Your task to perform on an android device: Go to Google Image 0: 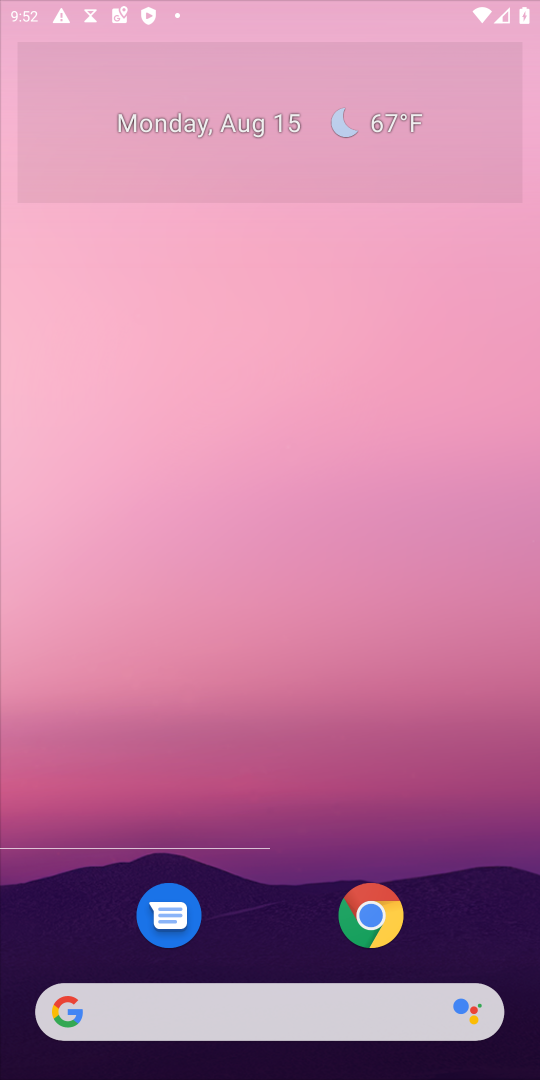
Step 0: press home button
Your task to perform on an android device: Go to Google Image 1: 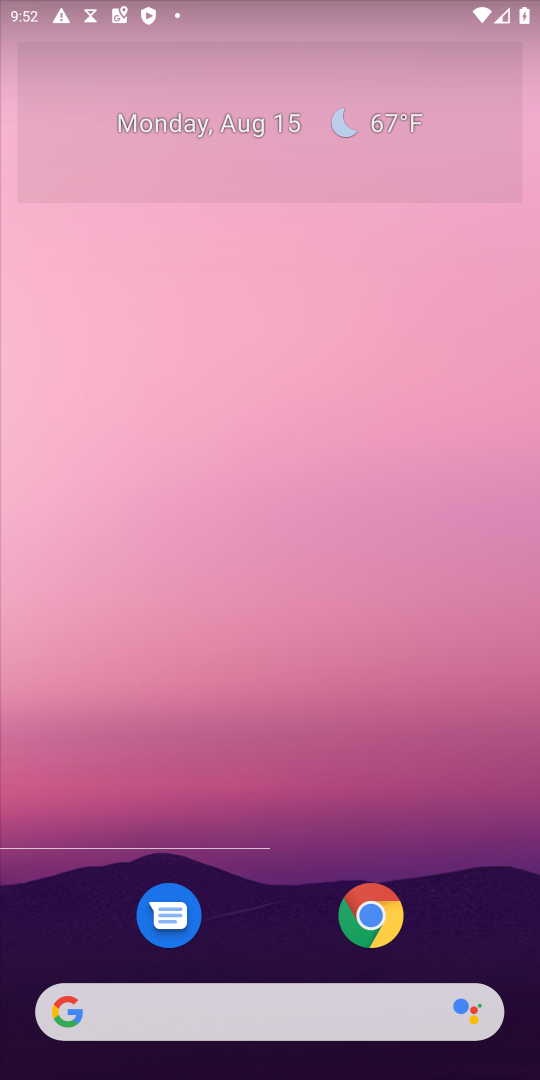
Step 1: drag from (271, 859) to (412, 47)
Your task to perform on an android device: Go to Google Image 2: 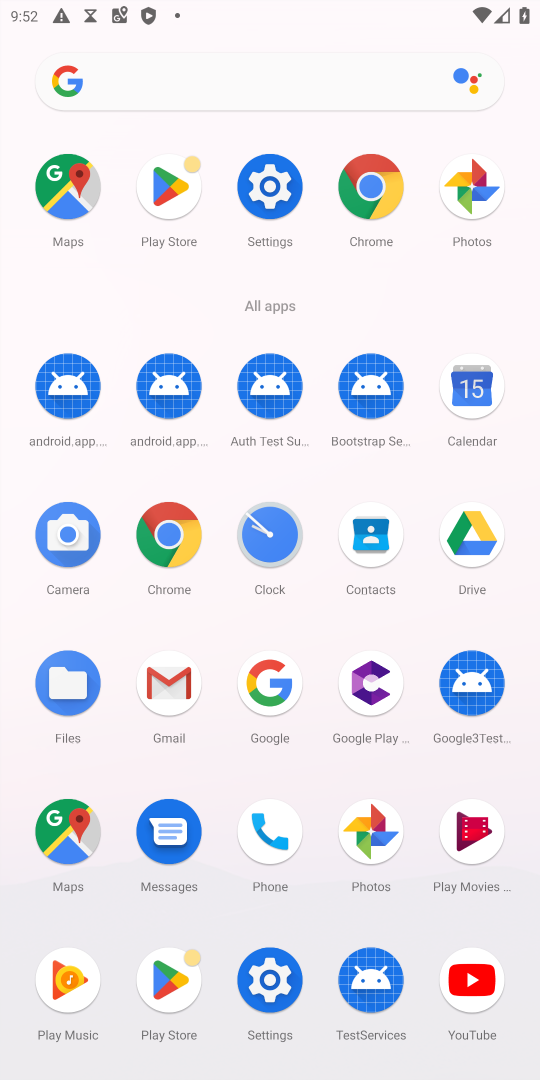
Step 2: click (264, 695)
Your task to perform on an android device: Go to Google Image 3: 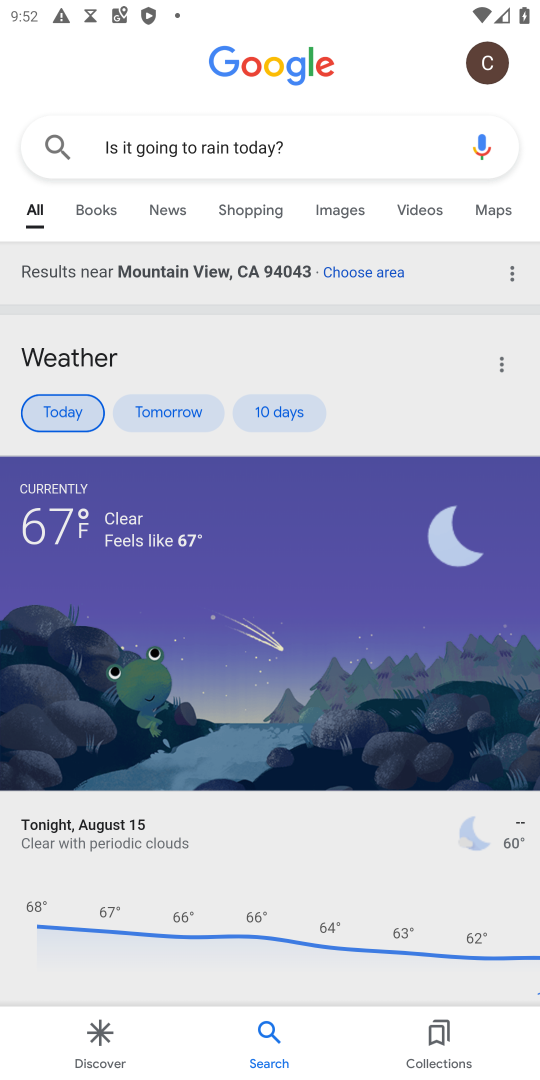
Step 3: click (259, 68)
Your task to perform on an android device: Go to Google Image 4: 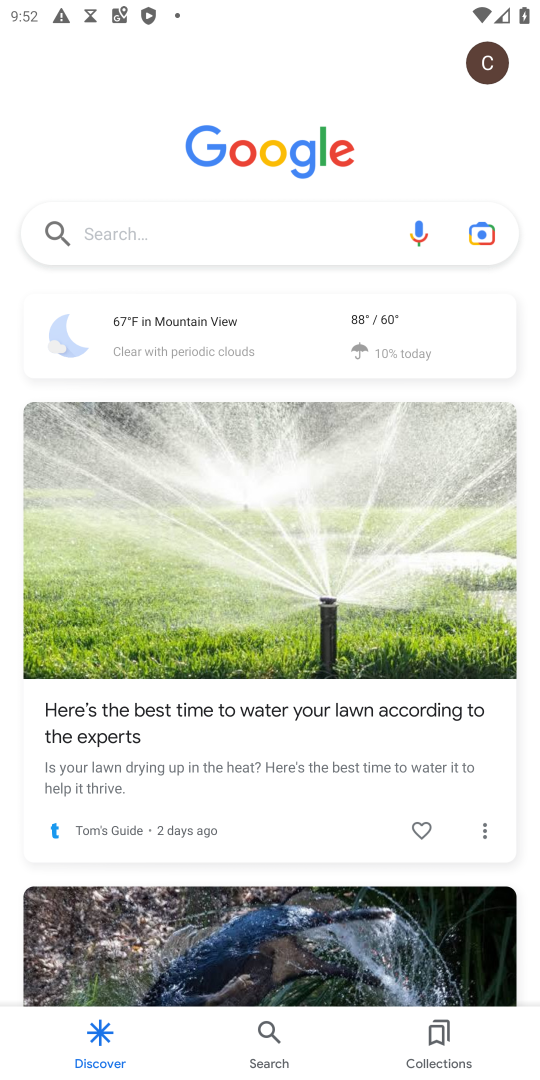
Step 4: task complete